Your task to perform on an android device: turn on improve location accuracy Image 0: 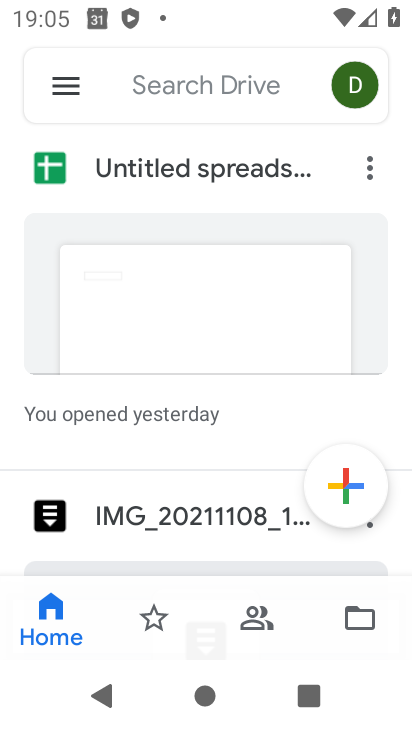
Step 0: press home button
Your task to perform on an android device: turn on improve location accuracy Image 1: 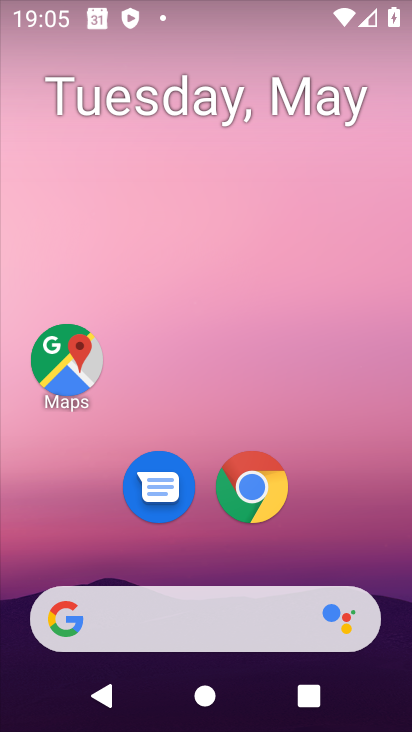
Step 1: drag from (332, 483) to (225, 77)
Your task to perform on an android device: turn on improve location accuracy Image 2: 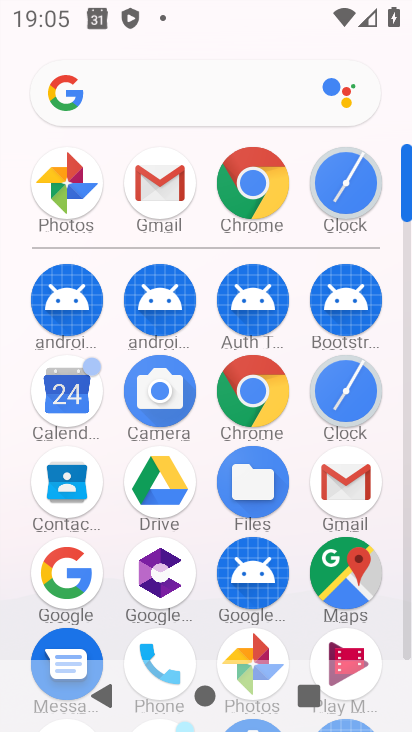
Step 2: drag from (207, 513) to (207, 25)
Your task to perform on an android device: turn on improve location accuracy Image 3: 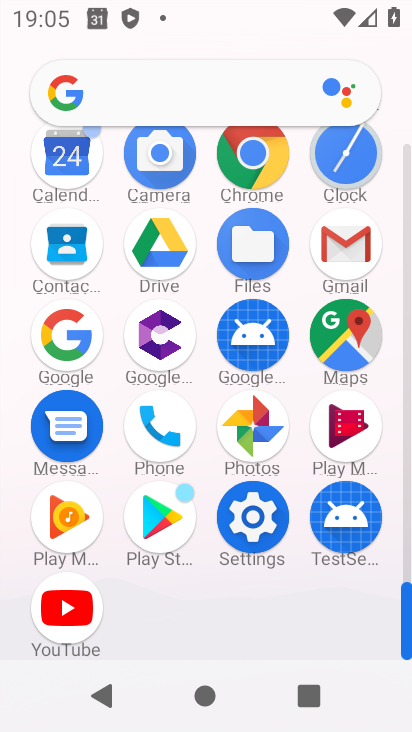
Step 3: click (242, 619)
Your task to perform on an android device: turn on improve location accuracy Image 4: 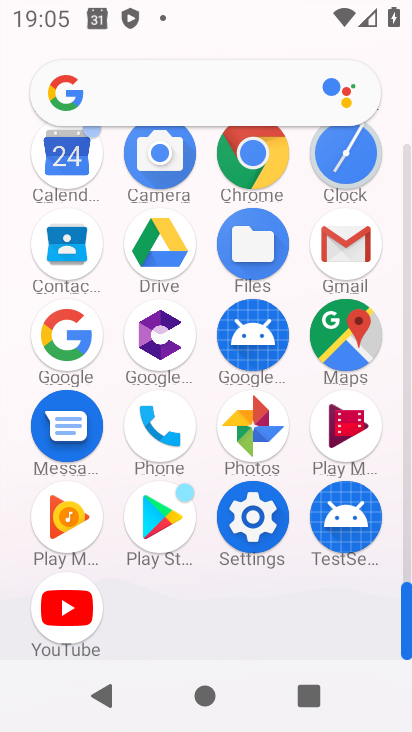
Step 4: click (253, 527)
Your task to perform on an android device: turn on improve location accuracy Image 5: 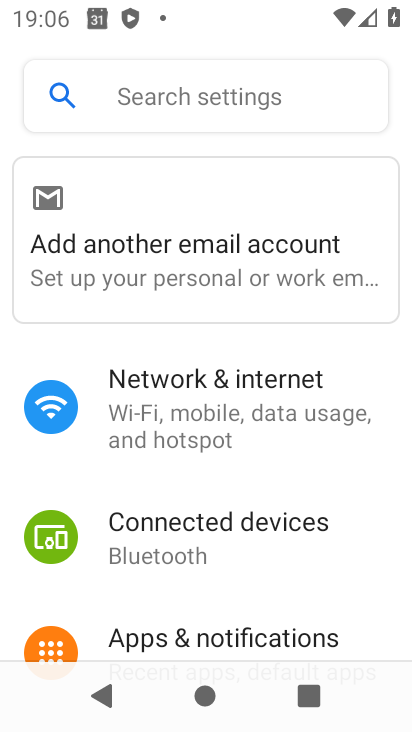
Step 5: drag from (223, 582) to (224, 281)
Your task to perform on an android device: turn on improve location accuracy Image 6: 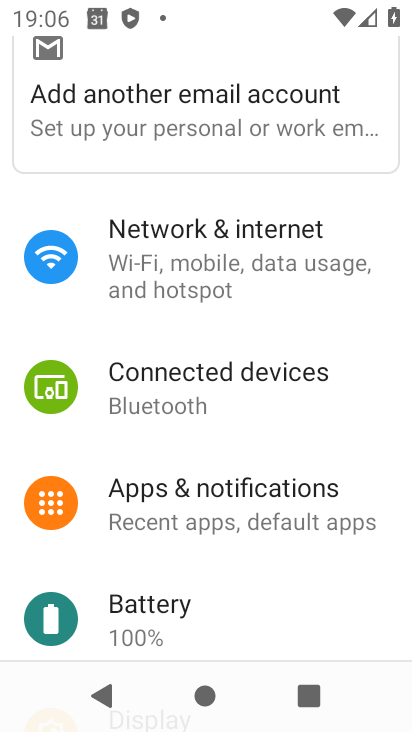
Step 6: drag from (227, 558) to (227, 281)
Your task to perform on an android device: turn on improve location accuracy Image 7: 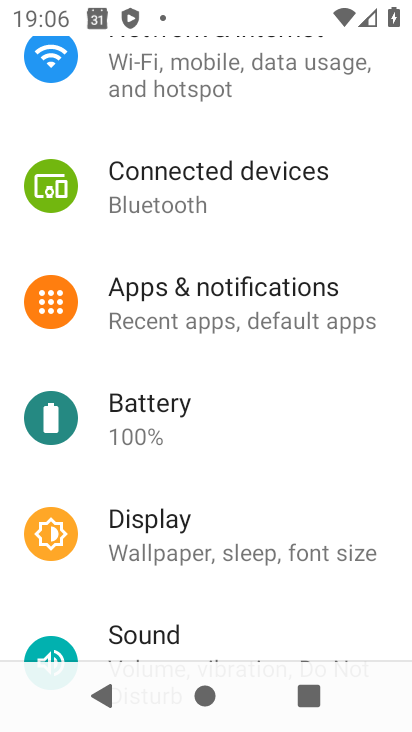
Step 7: drag from (226, 481) to (209, 132)
Your task to perform on an android device: turn on improve location accuracy Image 8: 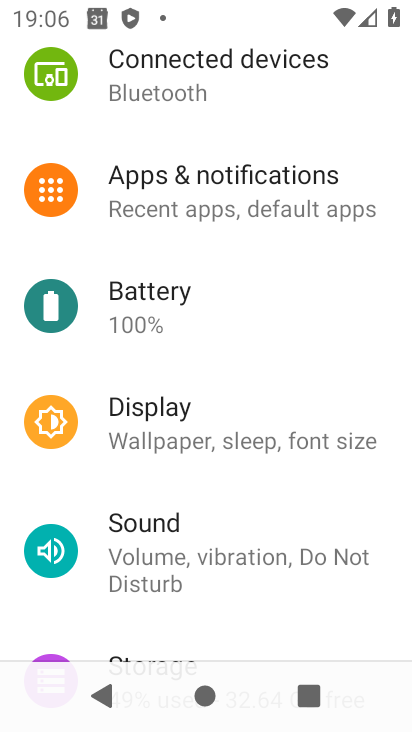
Step 8: drag from (199, 494) to (191, 246)
Your task to perform on an android device: turn on improve location accuracy Image 9: 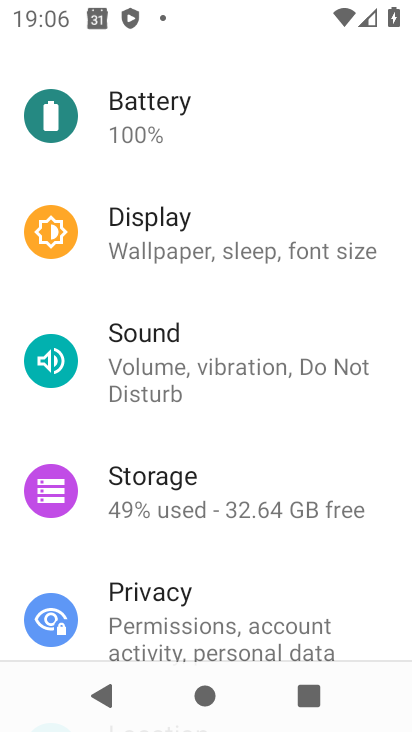
Step 9: drag from (205, 547) to (206, 297)
Your task to perform on an android device: turn on improve location accuracy Image 10: 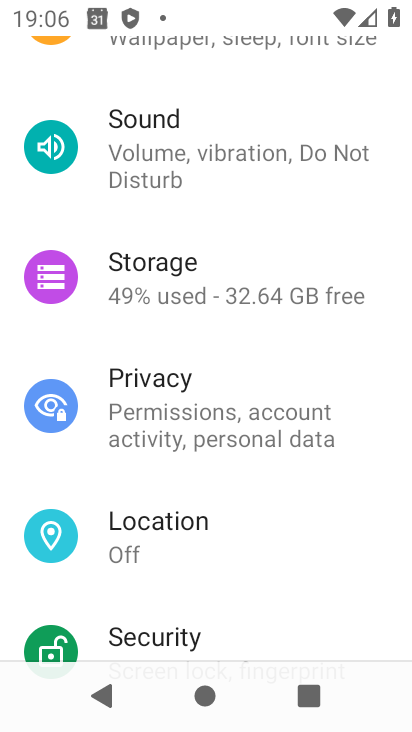
Step 10: click (162, 512)
Your task to perform on an android device: turn on improve location accuracy Image 11: 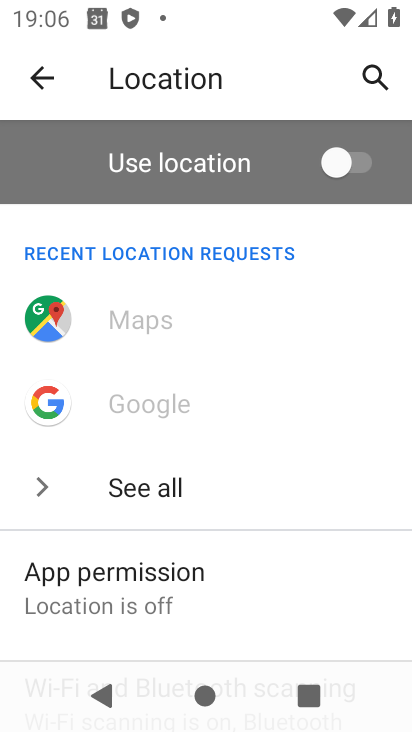
Step 11: drag from (264, 561) to (222, 262)
Your task to perform on an android device: turn on improve location accuracy Image 12: 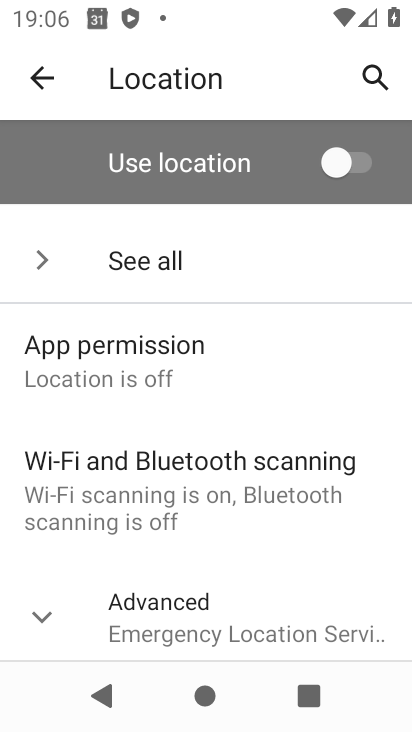
Step 12: click (48, 620)
Your task to perform on an android device: turn on improve location accuracy Image 13: 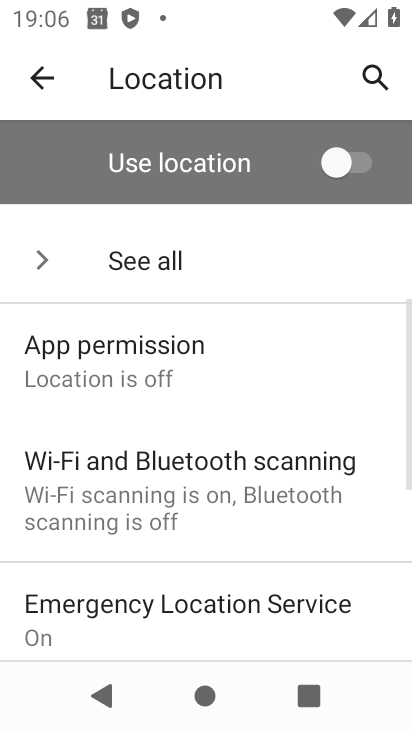
Step 13: drag from (178, 545) to (159, 180)
Your task to perform on an android device: turn on improve location accuracy Image 14: 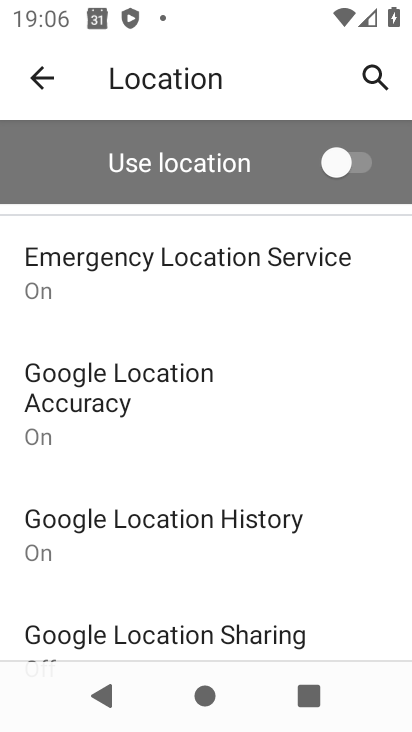
Step 14: click (101, 376)
Your task to perform on an android device: turn on improve location accuracy Image 15: 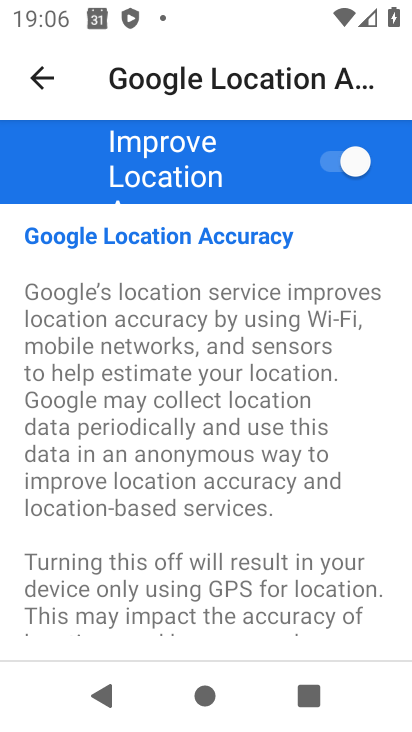
Step 15: task complete